Your task to perform on an android device: Search for Italian restaurants on Maps Image 0: 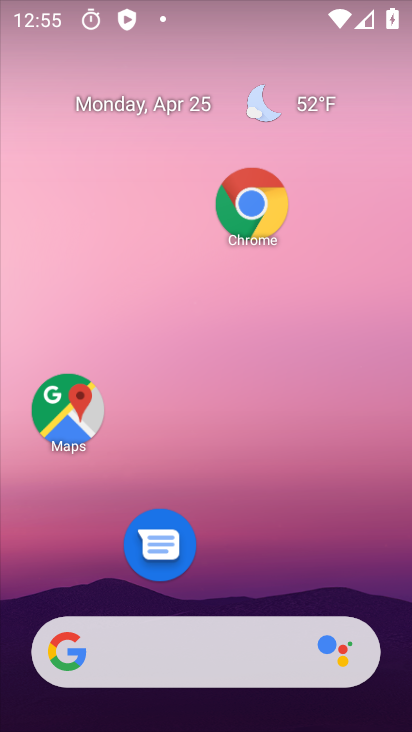
Step 0: drag from (259, 684) to (331, 105)
Your task to perform on an android device: Search for Italian restaurants on Maps Image 1: 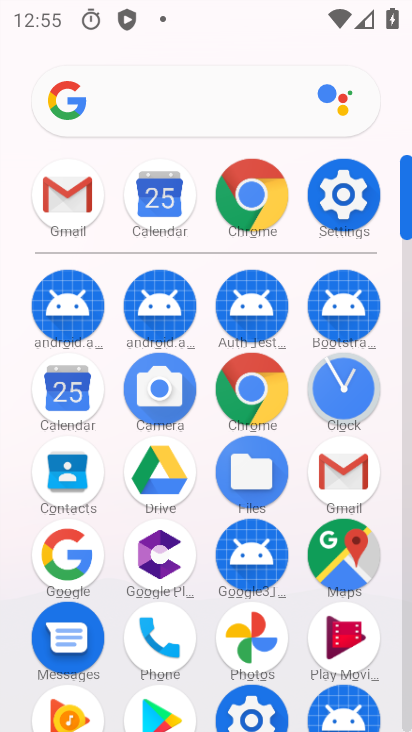
Step 1: click (334, 564)
Your task to perform on an android device: Search for Italian restaurants on Maps Image 2: 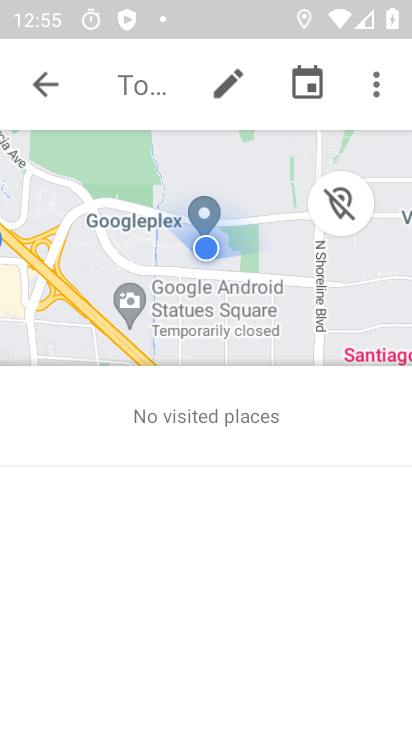
Step 2: click (46, 85)
Your task to perform on an android device: Search for Italian restaurants on Maps Image 3: 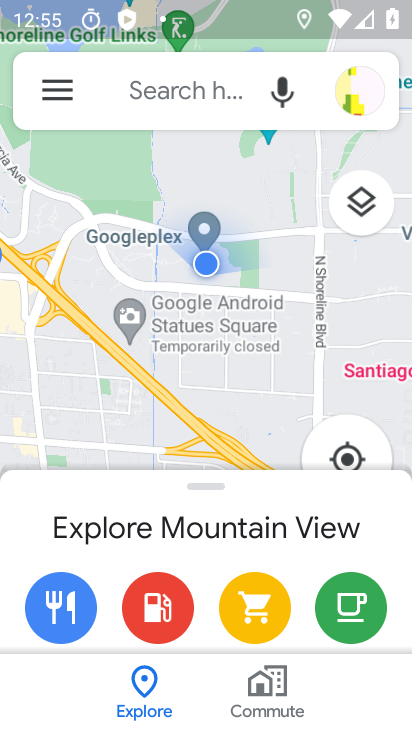
Step 3: click (165, 90)
Your task to perform on an android device: Search for Italian restaurants on Maps Image 4: 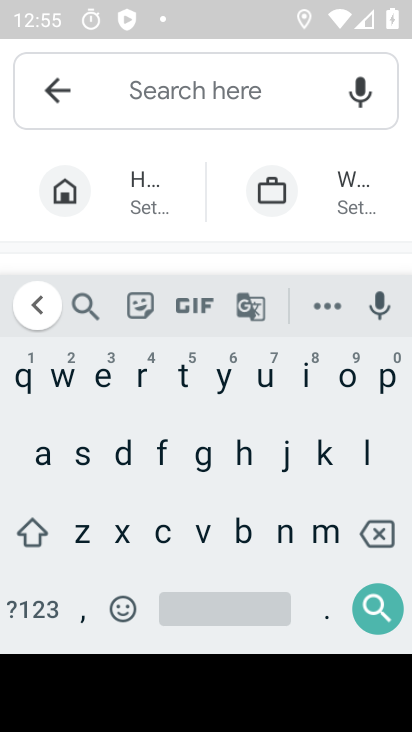
Step 4: click (307, 387)
Your task to perform on an android device: Search for Italian restaurants on Maps Image 5: 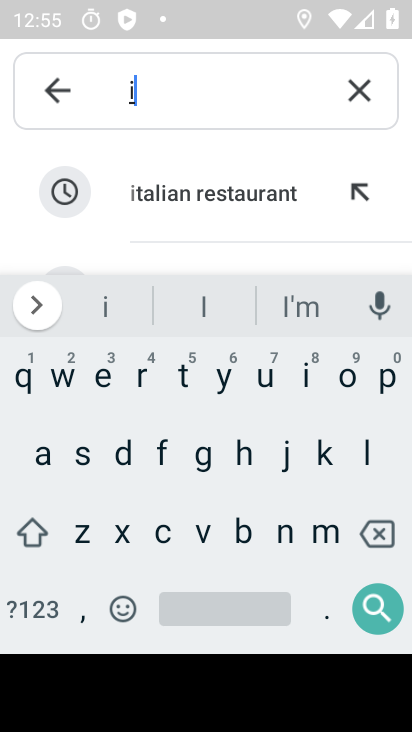
Step 5: click (174, 191)
Your task to perform on an android device: Search for Italian restaurants on Maps Image 6: 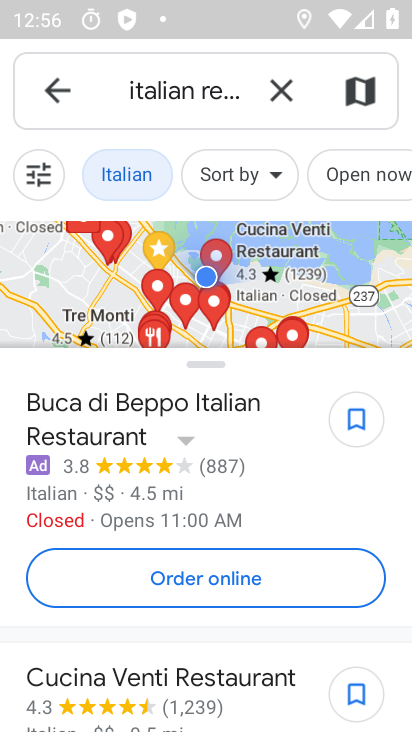
Step 6: click (113, 285)
Your task to perform on an android device: Search for Italian restaurants on Maps Image 7: 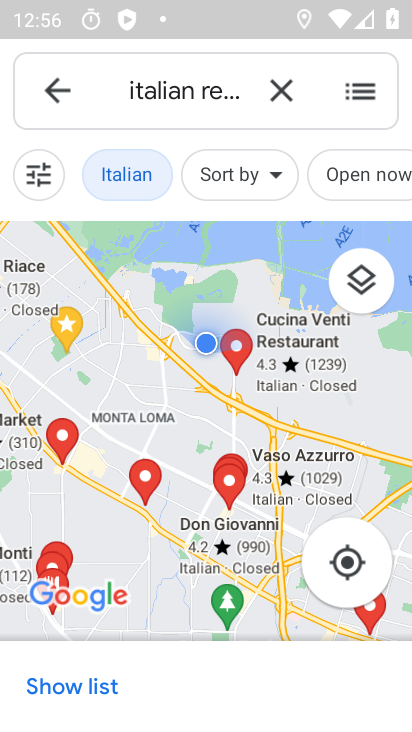
Step 7: task complete